Your task to perform on an android device: turn off translation in the chrome app Image 0: 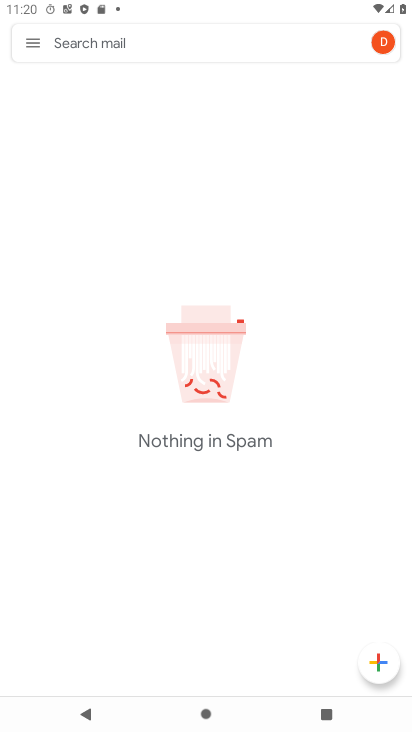
Step 0: press home button
Your task to perform on an android device: turn off translation in the chrome app Image 1: 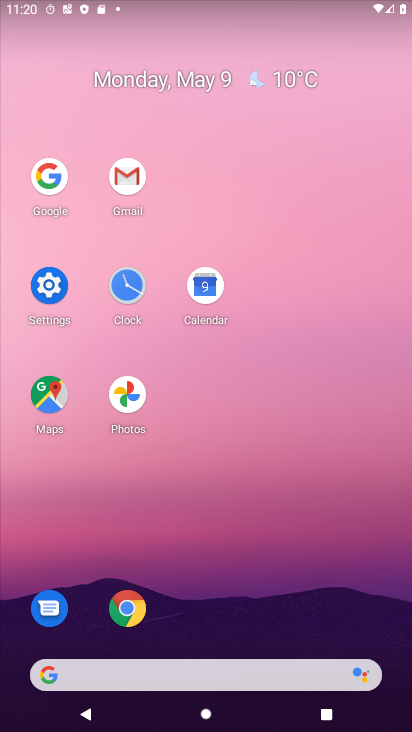
Step 1: click (123, 615)
Your task to perform on an android device: turn off translation in the chrome app Image 2: 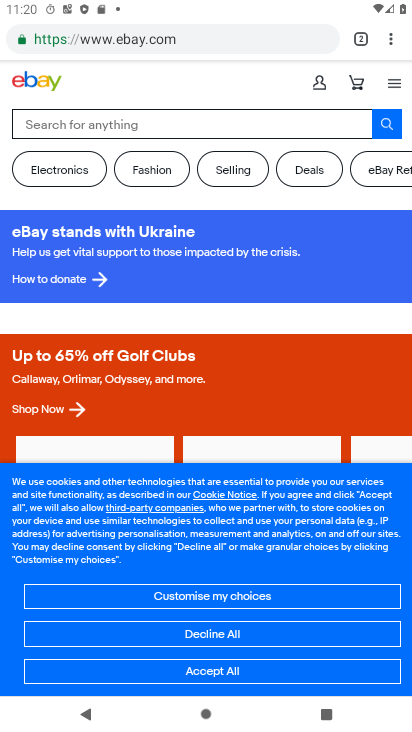
Step 2: click (395, 32)
Your task to perform on an android device: turn off translation in the chrome app Image 3: 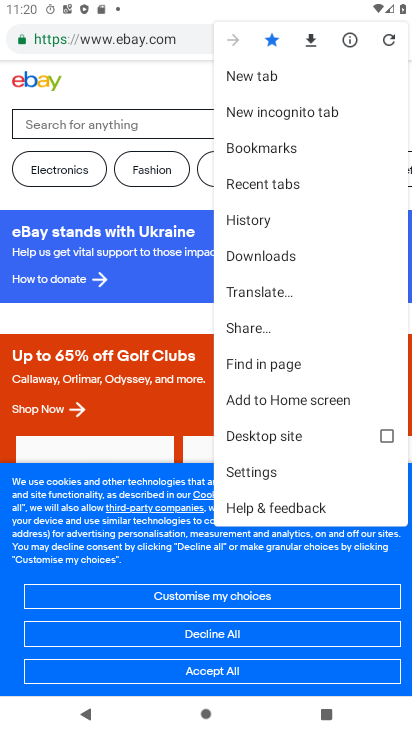
Step 3: click (279, 474)
Your task to perform on an android device: turn off translation in the chrome app Image 4: 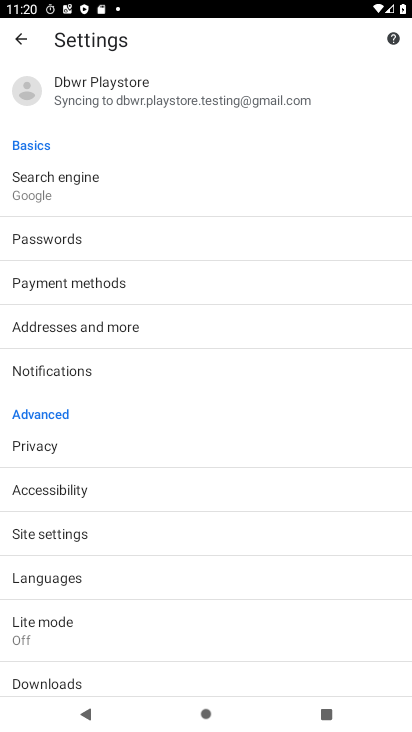
Step 4: click (116, 578)
Your task to perform on an android device: turn off translation in the chrome app Image 5: 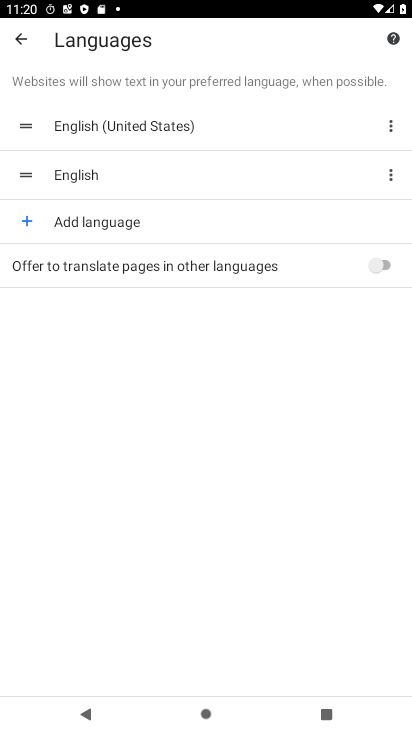
Step 5: task complete